Your task to perform on an android device: open the mobile data screen to see how much data has been used Image 0: 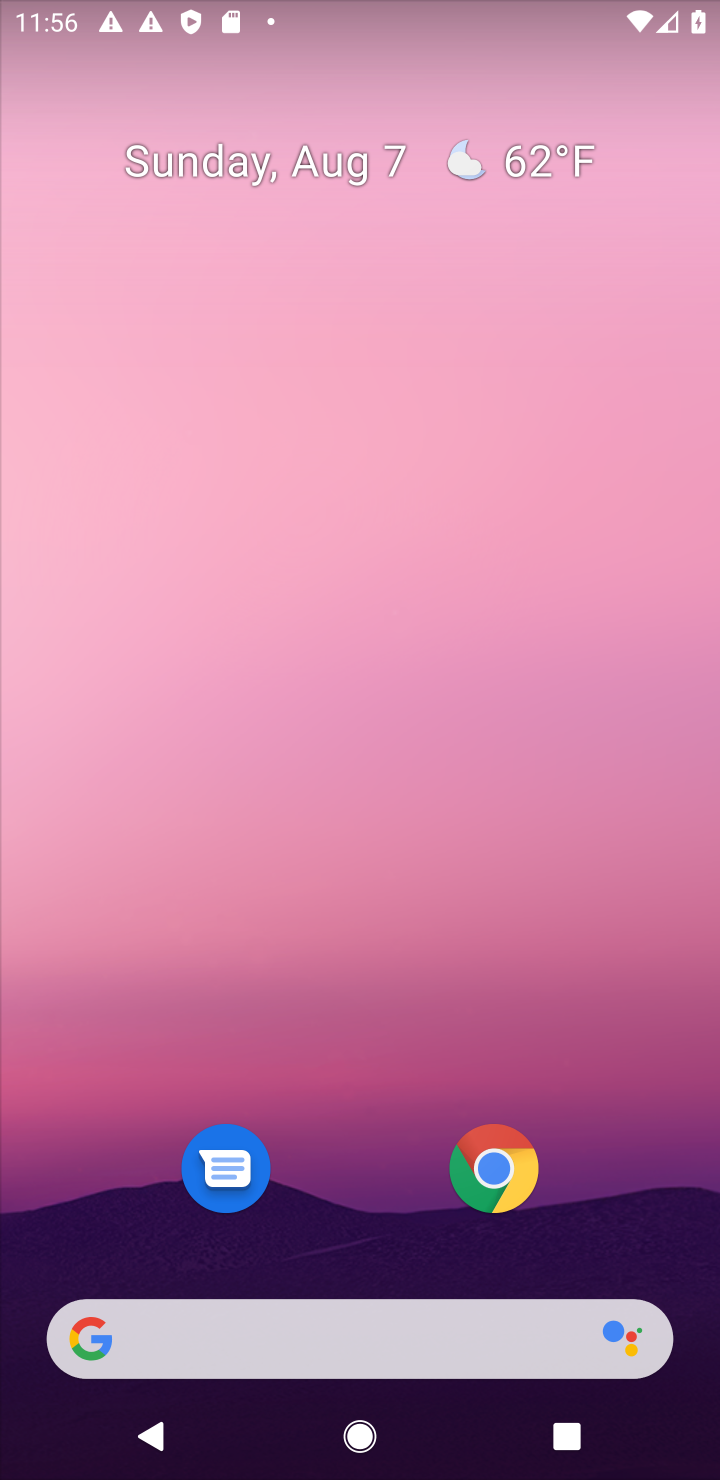
Step 0: click (480, 1188)
Your task to perform on an android device: open the mobile data screen to see how much data has been used Image 1: 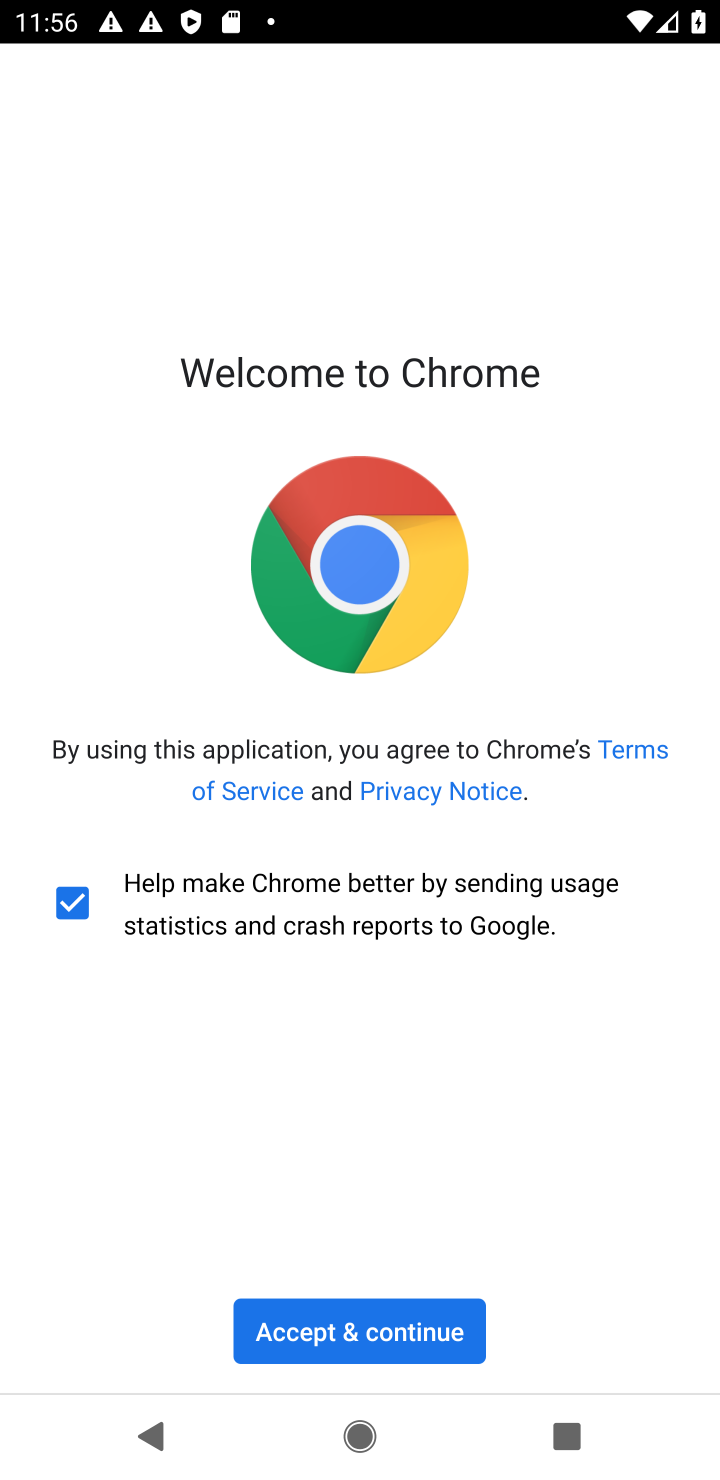
Step 1: press home button
Your task to perform on an android device: open the mobile data screen to see how much data has been used Image 2: 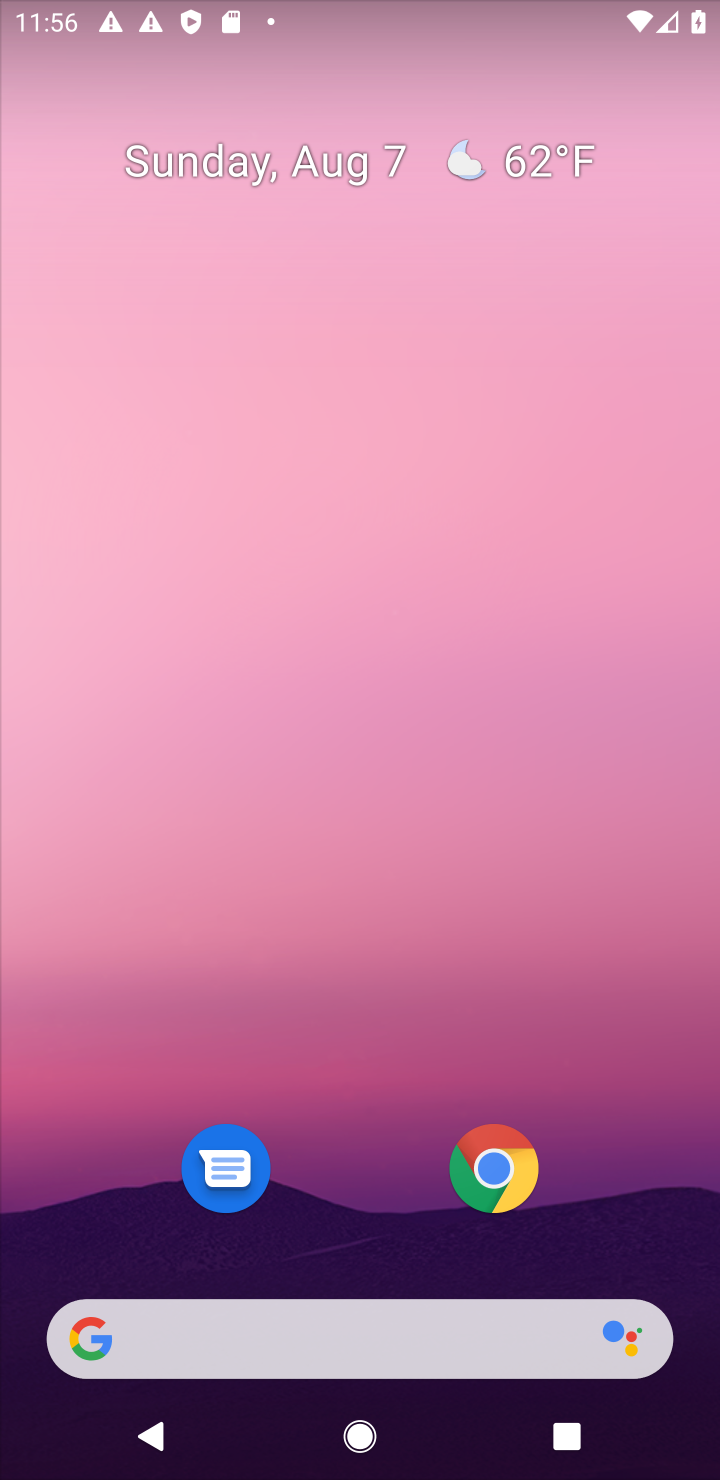
Step 2: drag from (418, 1277) to (370, 14)
Your task to perform on an android device: open the mobile data screen to see how much data has been used Image 3: 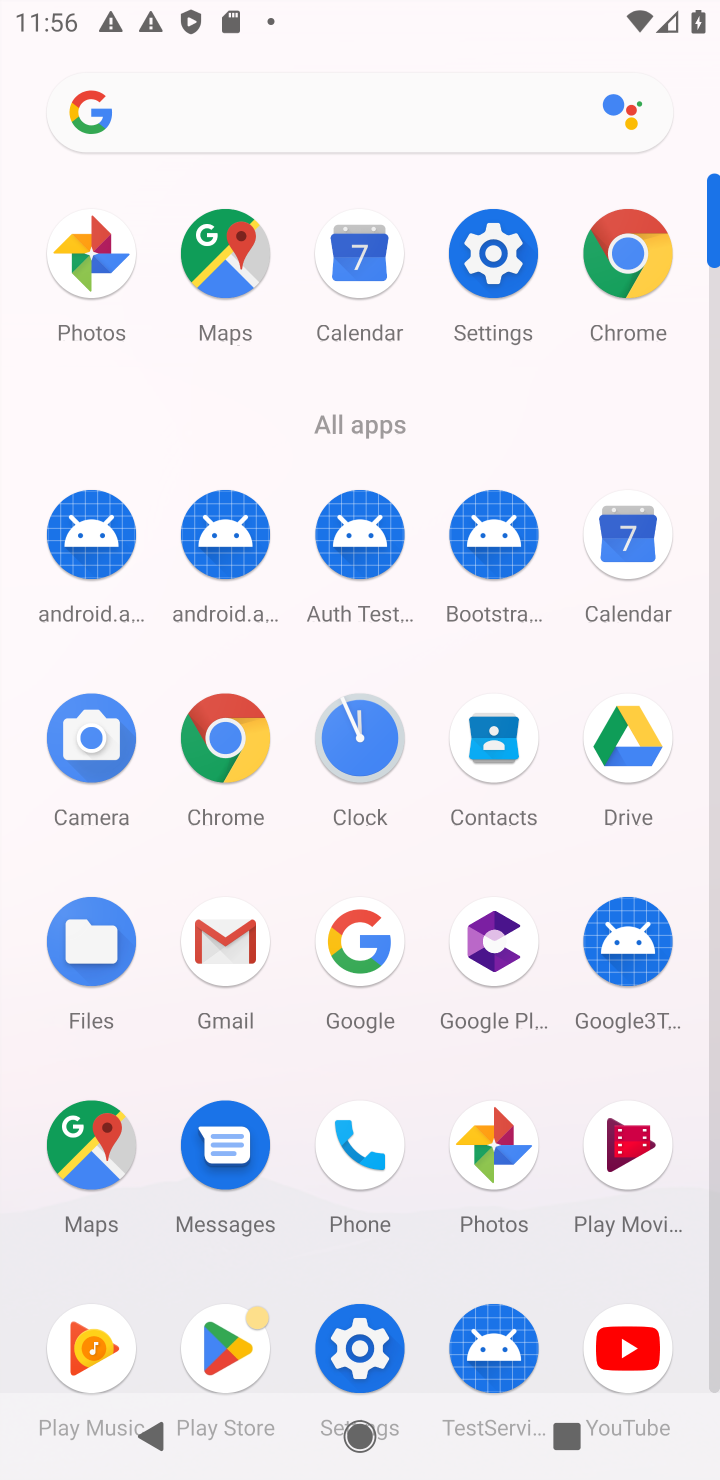
Step 3: click (513, 291)
Your task to perform on an android device: open the mobile data screen to see how much data has been used Image 4: 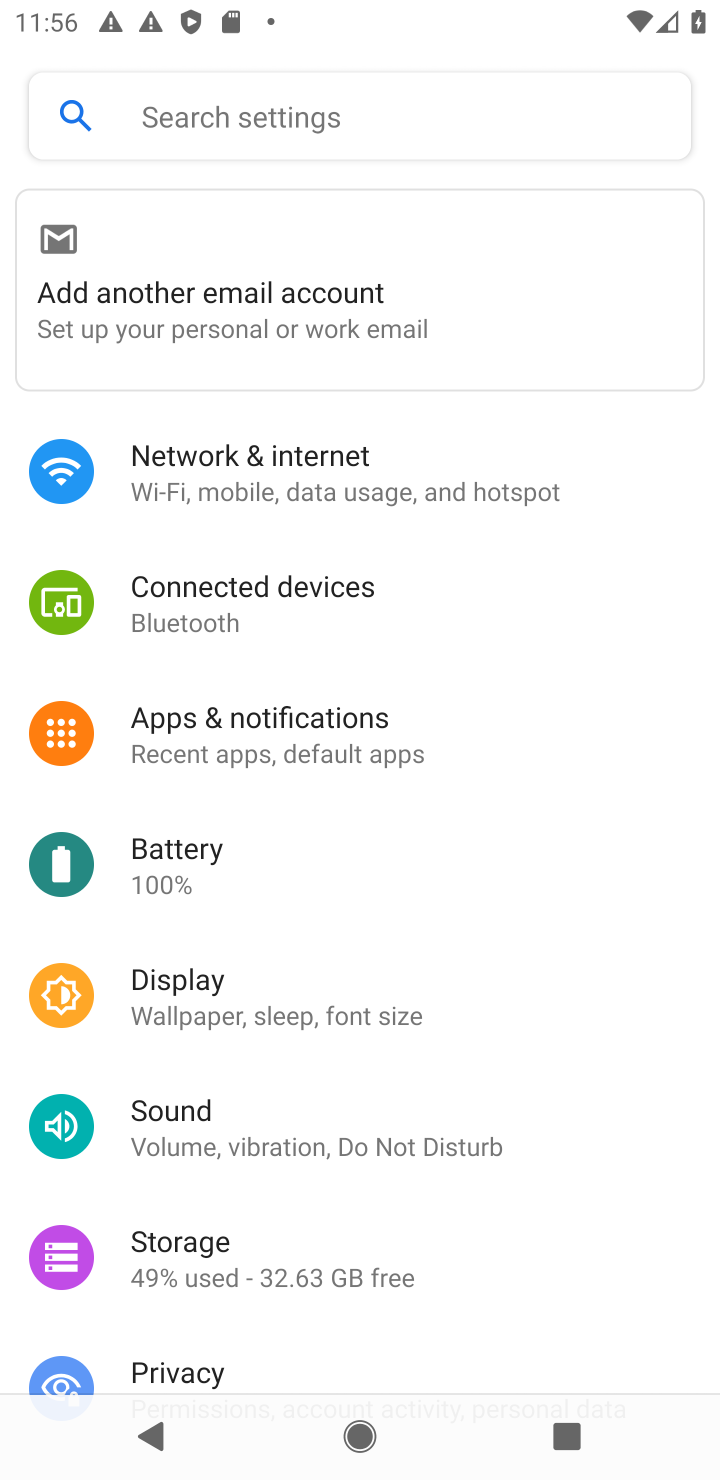
Step 4: click (509, 465)
Your task to perform on an android device: open the mobile data screen to see how much data has been used Image 5: 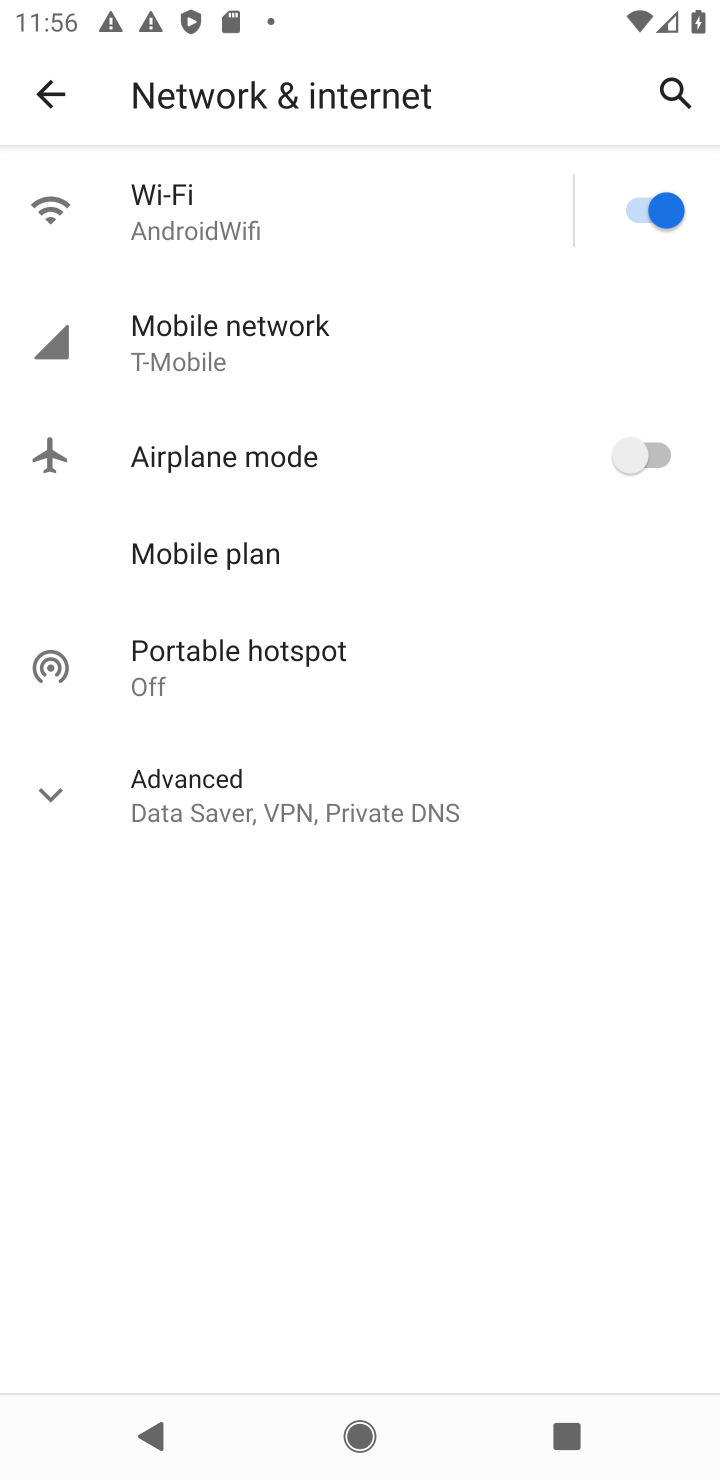
Step 5: click (257, 369)
Your task to perform on an android device: open the mobile data screen to see how much data has been used Image 6: 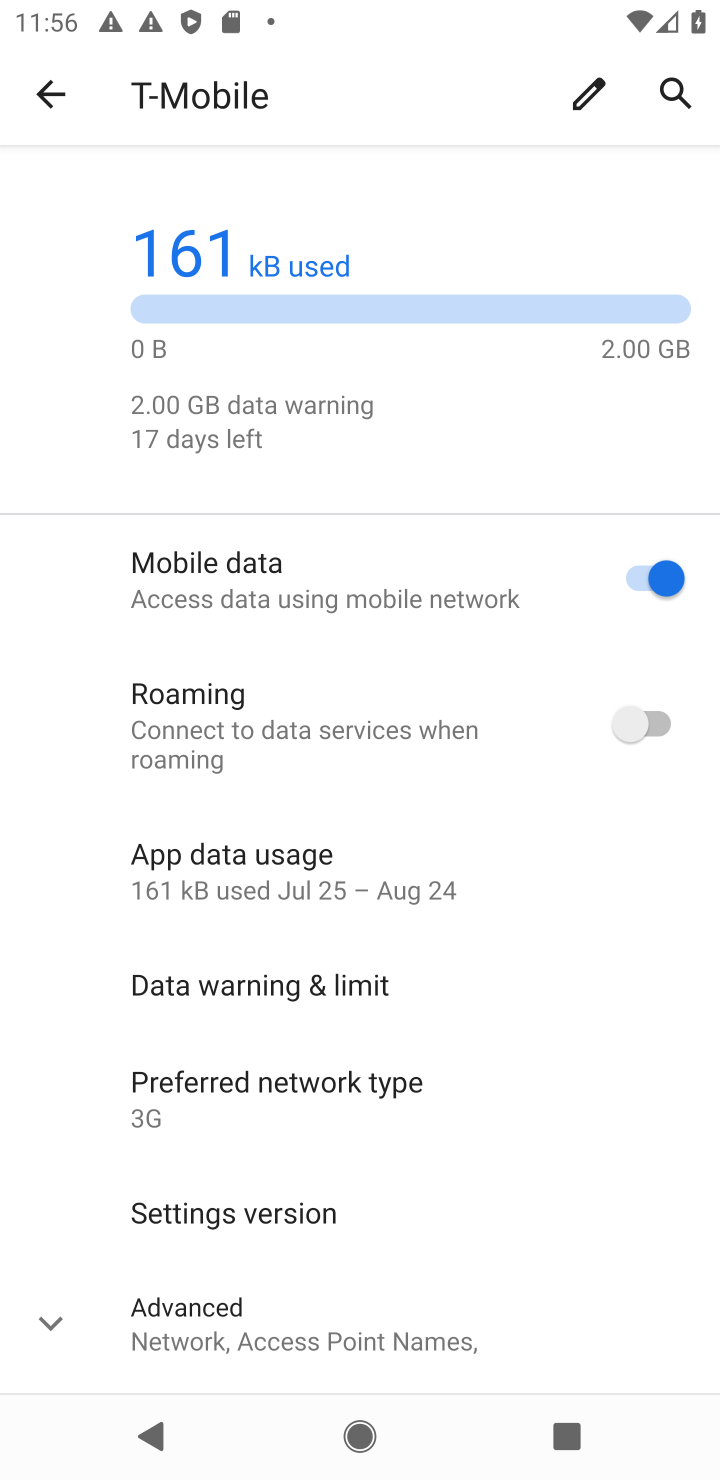
Step 6: task complete